Your task to perform on an android device: Open Reddit.com Image 0: 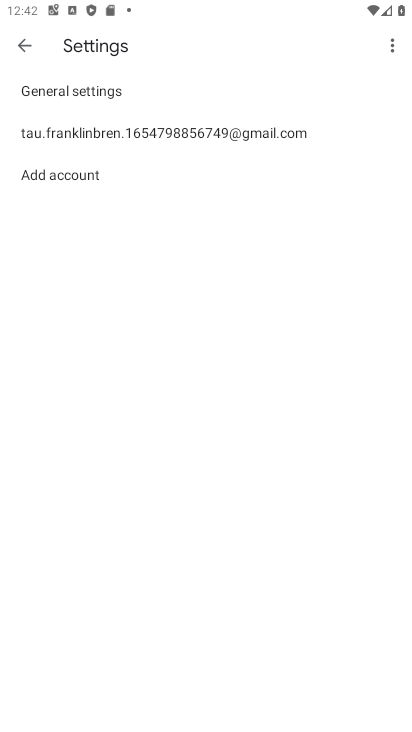
Step 0: press home button
Your task to perform on an android device: Open Reddit.com Image 1: 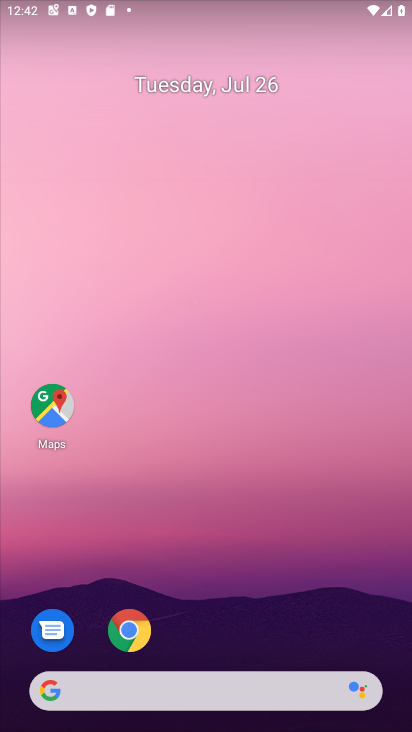
Step 1: click (126, 630)
Your task to perform on an android device: Open Reddit.com Image 2: 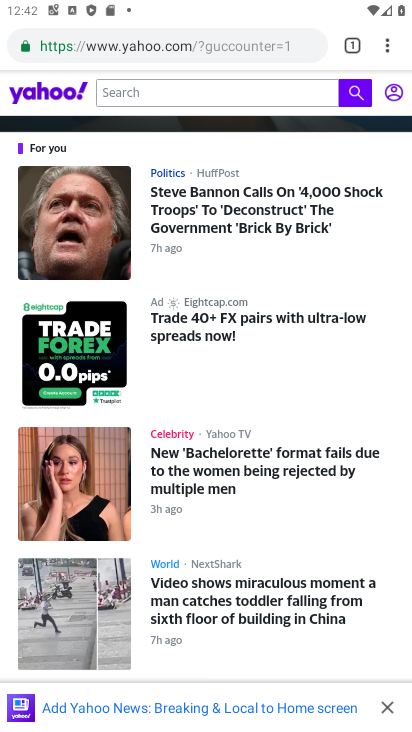
Step 2: click (293, 37)
Your task to perform on an android device: Open Reddit.com Image 3: 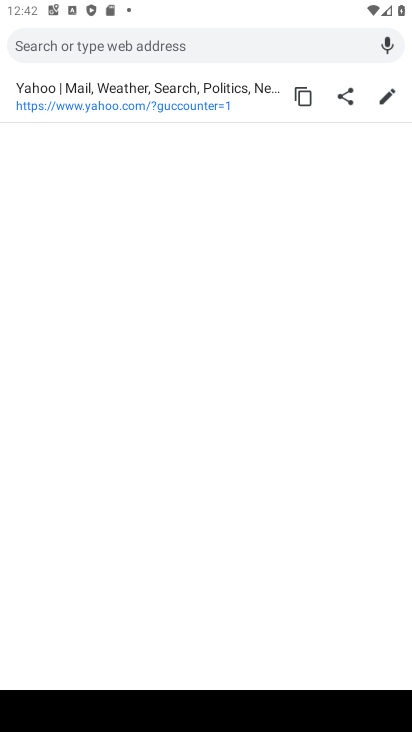
Step 3: type "reddit.com"
Your task to perform on an android device: Open Reddit.com Image 4: 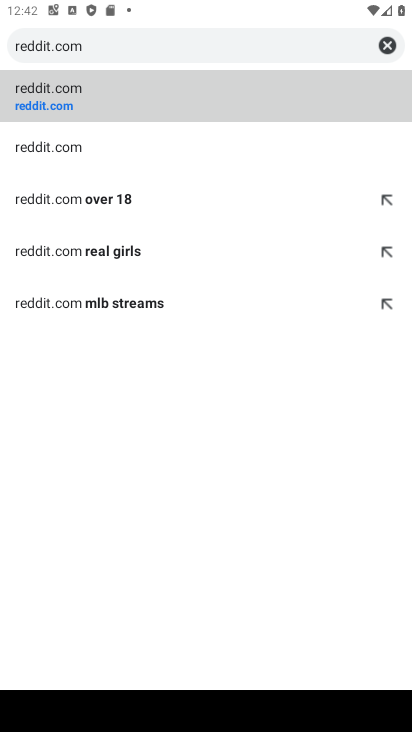
Step 4: click (52, 92)
Your task to perform on an android device: Open Reddit.com Image 5: 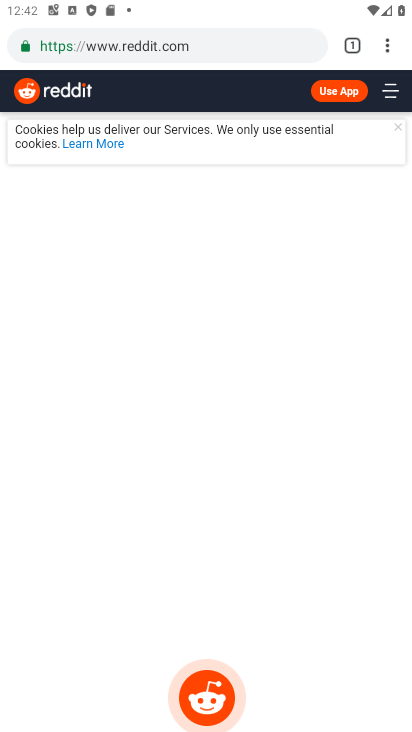
Step 5: task complete